Your task to perform on an android device: find snoozed emails in the gmail app Image 0: 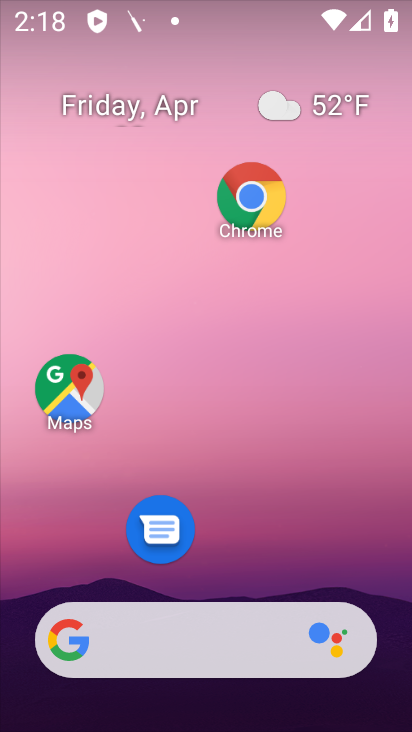
Step 0: drag from (221, 564) to (221, 160)
Your task to perform on an android device: find snoozed emails in the gmail app Image 1: 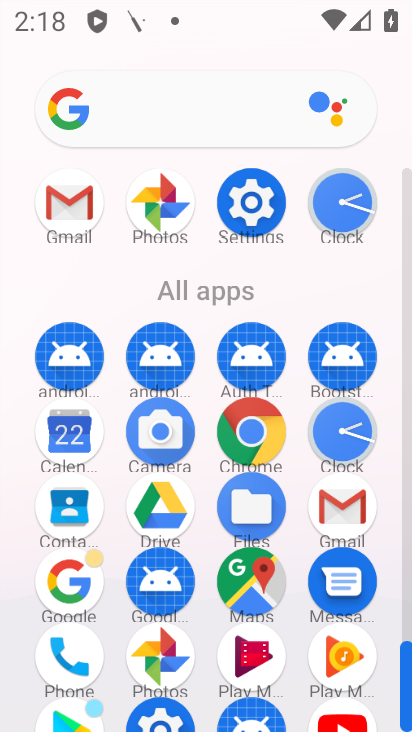
Step 1: click (62, 210)
Your task to perform on an android device: find snoozed emails in the gmail app Image 2: 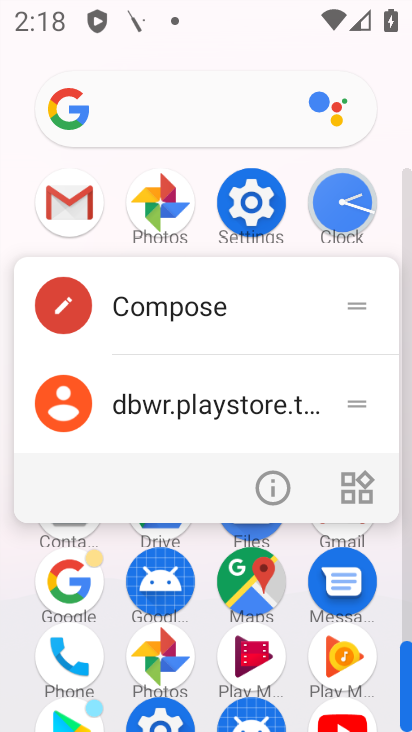
Step 2: click (62, 210)
Your task to perform on an android device: find snoozed emails in the gmail app Image 3: 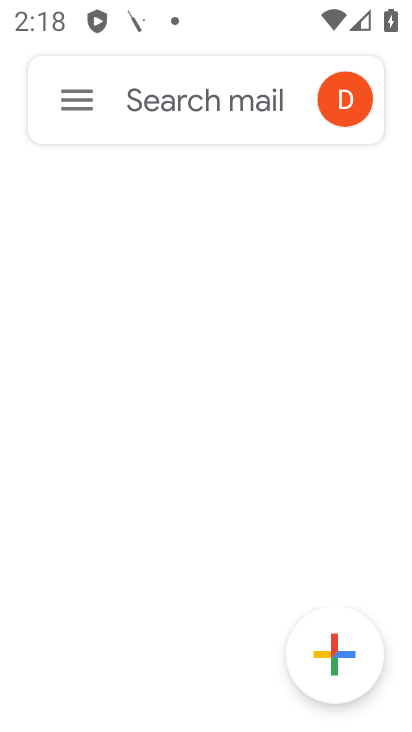
Step 3: click (74, 107)
Your task to perform on an android device: find snoozed emails in the gmail app Image 4: 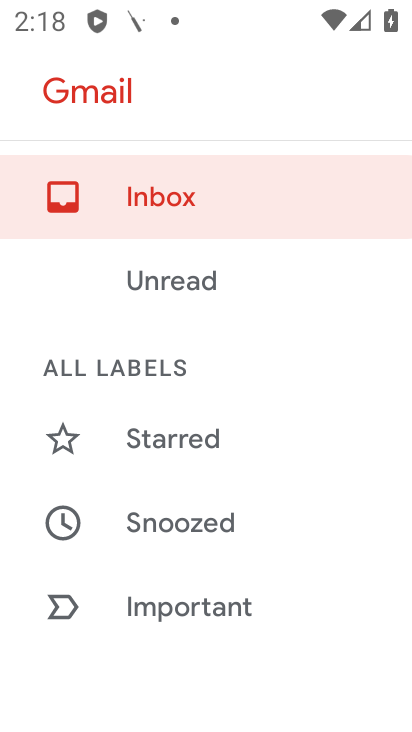
Step 4: click (187, 526)
Your task to perform on an android device: find snoozed emails in the gmail app Image 5: 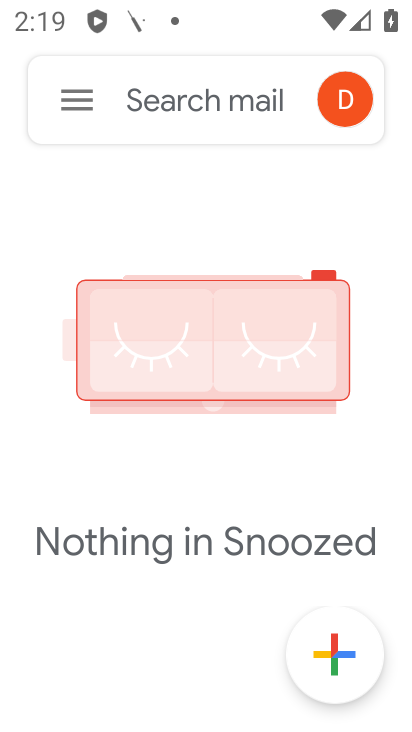
Step 5: task complete